Your task to perform on an android device: toggle notifications settings in the gmail app Image 0: 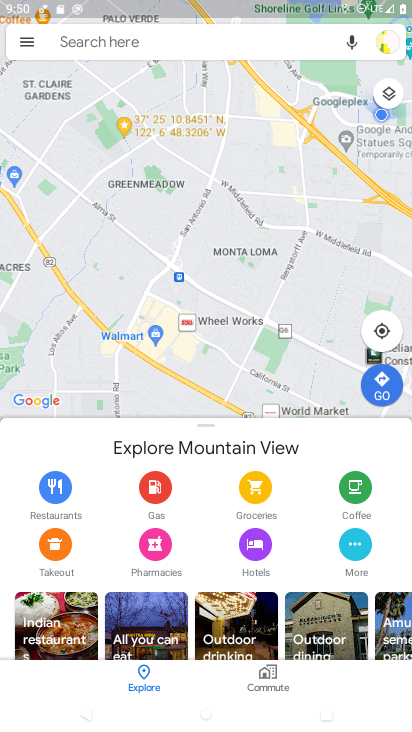
Step 0: press home button
Your task to perform on an android device: toggle notifications settings in the gmail app Image 1: 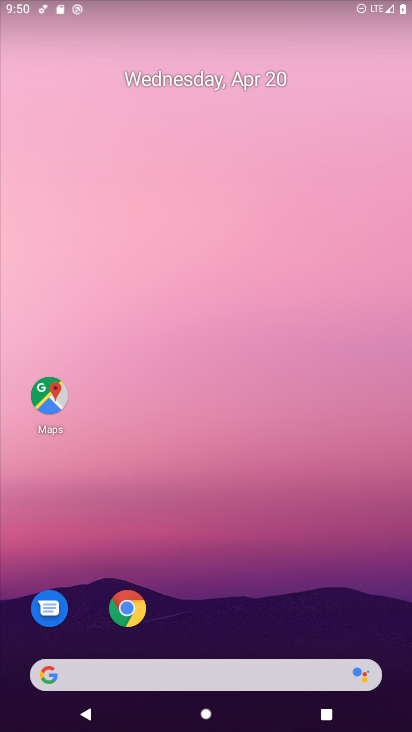
Step 1: drag from (195, 611) to (306, 29)
Your task to perform on an android device: toggle notifications settings in the gmail app Image 2: 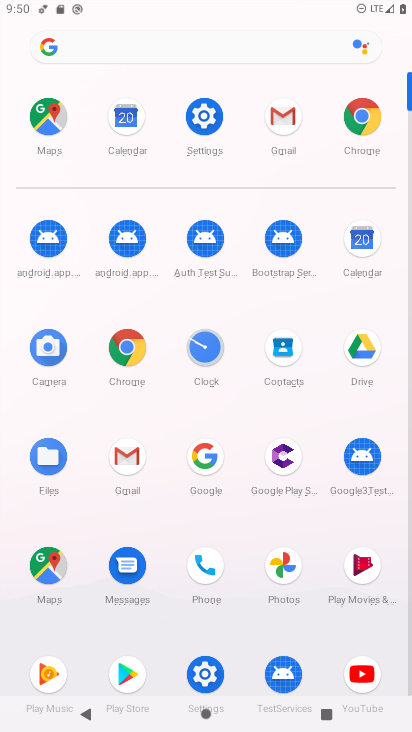
Step 2: click (122, 457)
Your task to perform on an android device: toggle notifications settings in the gmail app Image 3: 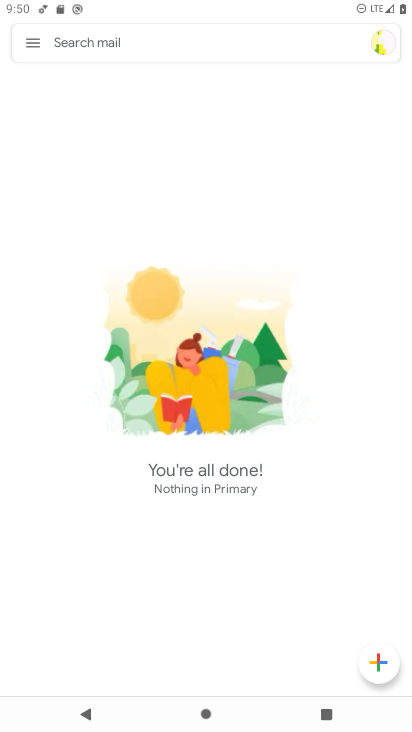
Step 3: click (29, 44)
Your task to perform on an android device: toggle notifications settings in the gmail app Image 4: 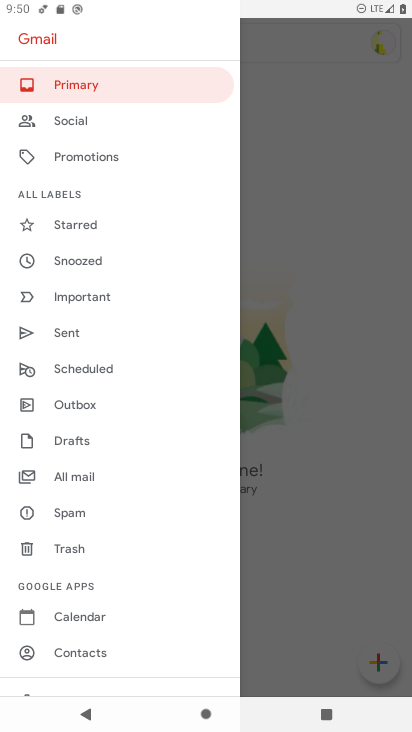
Step 4: drag from (82, 609) to (187, 238)
Your task to perform on an android device: toggle notifications settings in the gmail app Image 5: 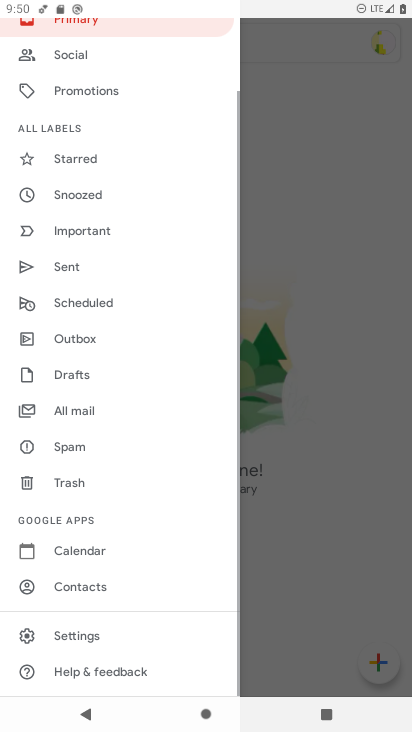
Step 5: click (68, 636)
Your task to perform on an android device: toggle notifications settings in the gmail app Image 6: 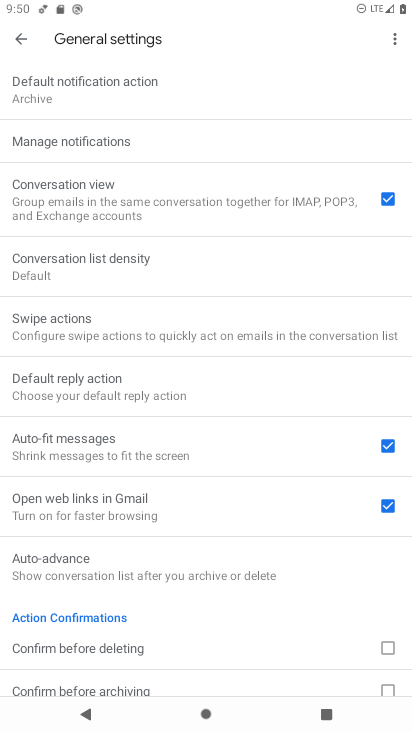
Step 6: click (116, 135)
Your task to perform on an android device: toggle notifications settings in the gmail app Image 7: 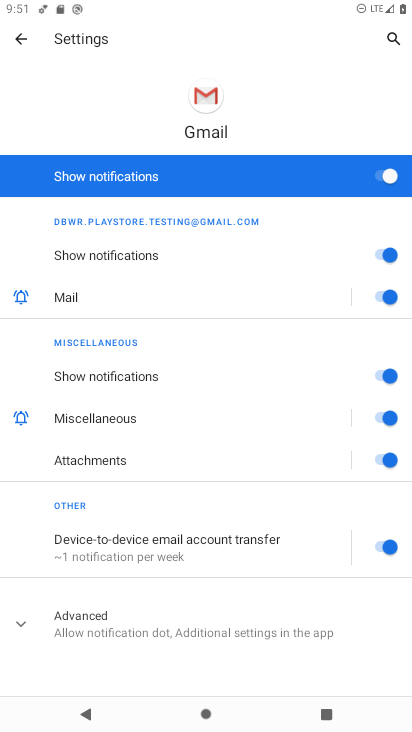
Step 7: click (381, 179)
Your task to perform on an android device: toggle notifications settings in the gmail app Image 8: 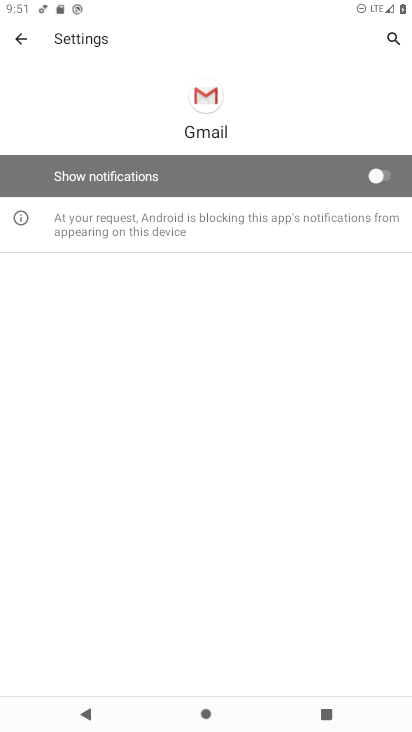
Step 8: task complete